Your task to perform on an android device: Search for custom wallets on Etsy. Image 0: 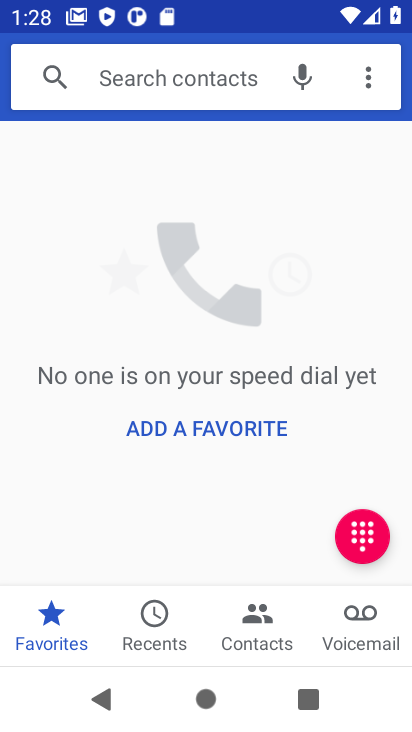
Step 0: press home button
Your task to perform on an android device: Search for custom wallets on Etsy. Image 1: 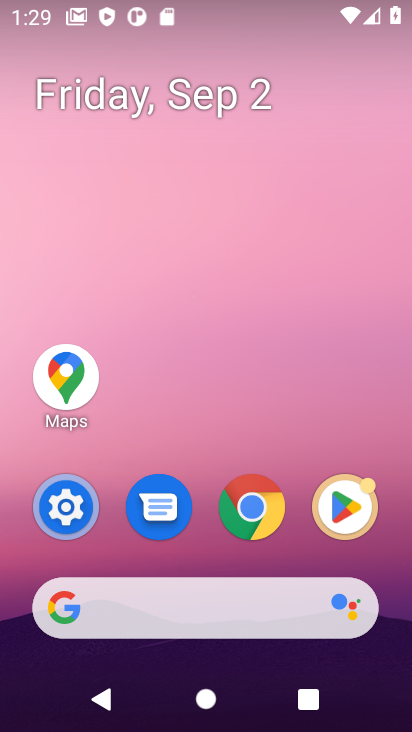
Step 1: click (248, 492)
Your task to perform on an android device: Search for custom wallets on Etsy. Image 2: 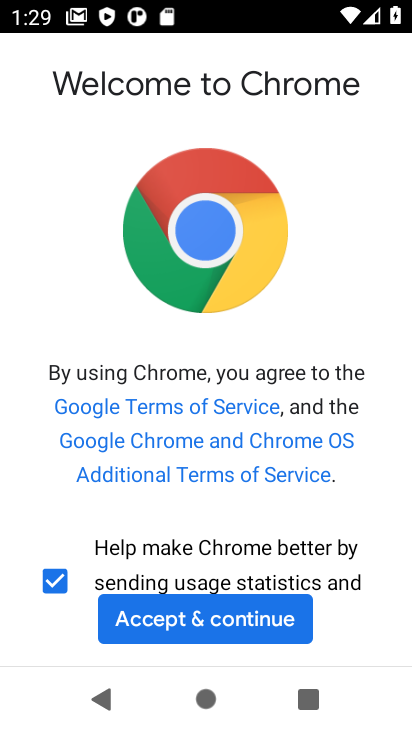
Step 2: click (258, 597)
Your task to perform on an android device: Search for custom wallets on Etsy. Image 3: 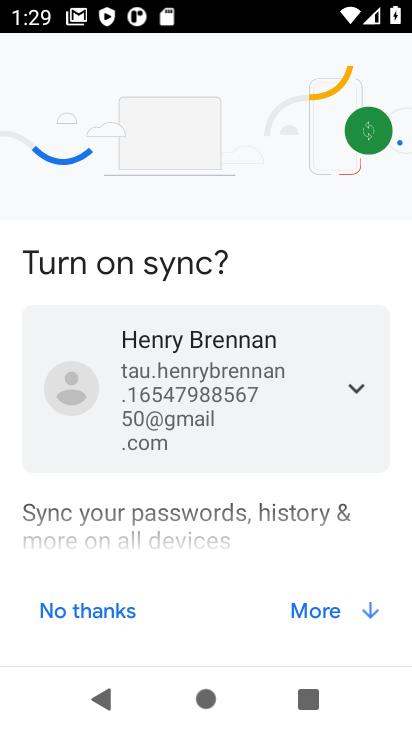
Step 3: click (297, 608)
Your task to perform on an android device: Search for custom wallets on Etsy. Image 4: 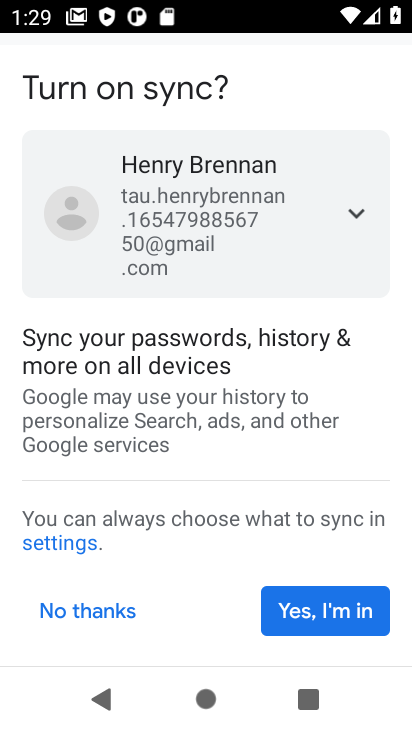
Step 4: click (301, 604)
Your task to perform on an android device: Search for custom wallets on Etsy. Image 5: 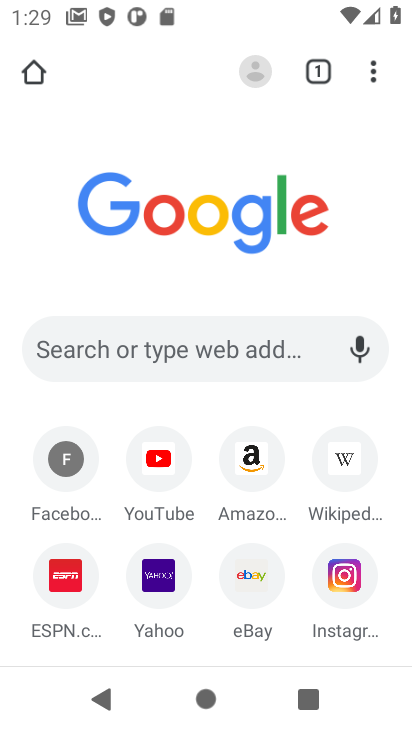
Step 5: click (207, 344)
Your task to perform on an android device: Search for custom wallets on Etsy. Image 6: 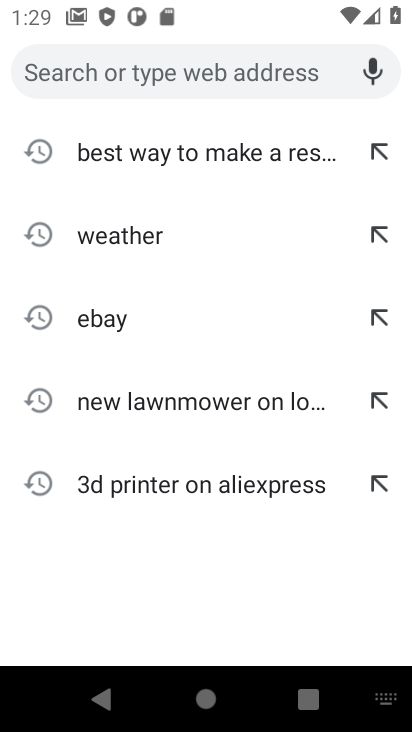
Step 6: type "esty"
Your task to perform on an android device: Search for custom wallets on Etsy. Image 7: 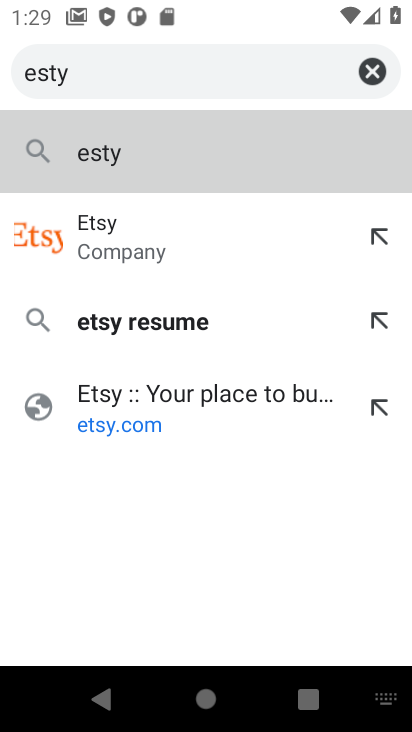
Step 7: click (229, 251)
Your task to perform on an android device: Search for custom wallets on Etsy. Image 8: 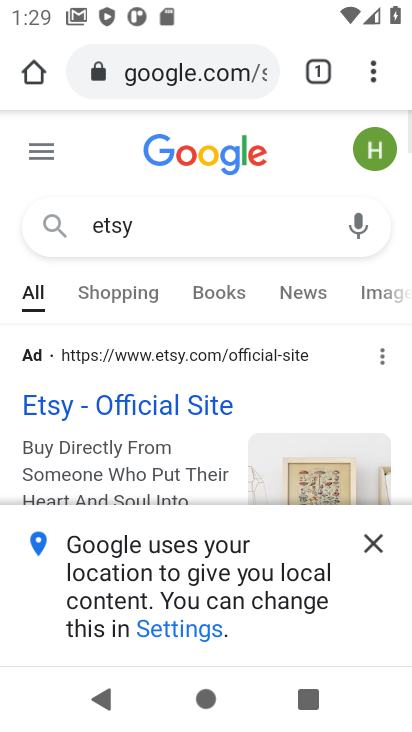
Step 8: click (380, 545)
Your task to perform on an android device: Search for custom wallets on Etsy. Image 9: 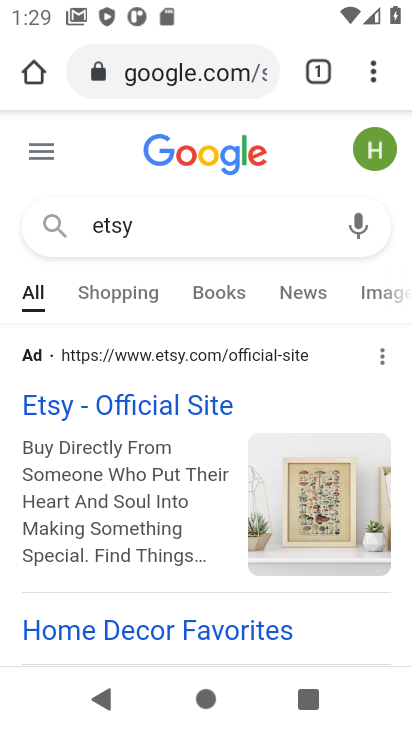
Step 9: click (157, 419)
Your task to perform on an android device: Search for custom wallets on Etsy. Image 10: 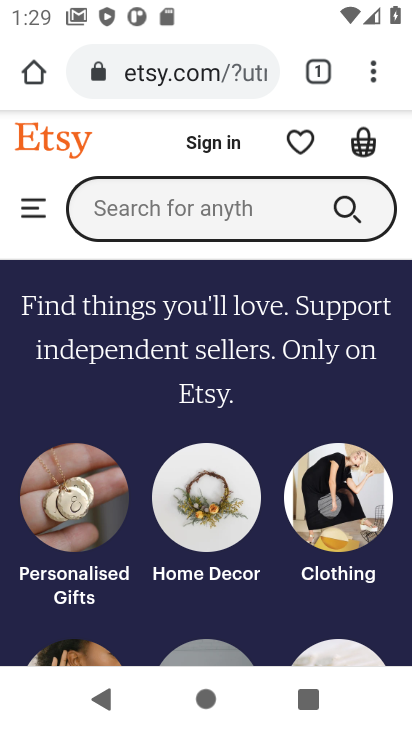
Step 10: click (205, 222)
Your task to perform on an android device: Search for custom wallets on Etsy. Image 11: 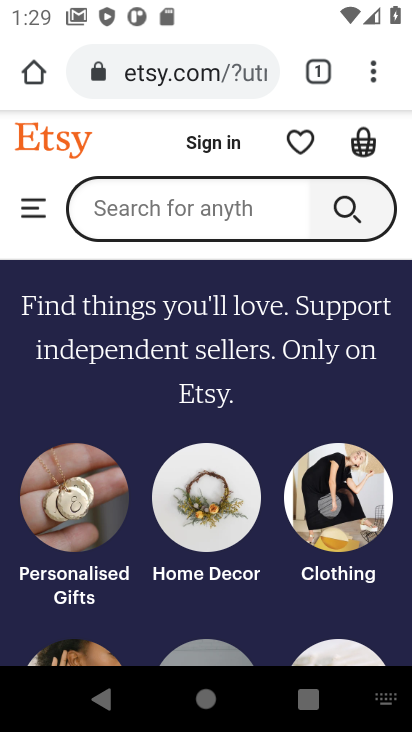
Step 11: type "cutom wallet"
Your task to perform on an android device: Search for custom wallets on Etsy. Image 12: 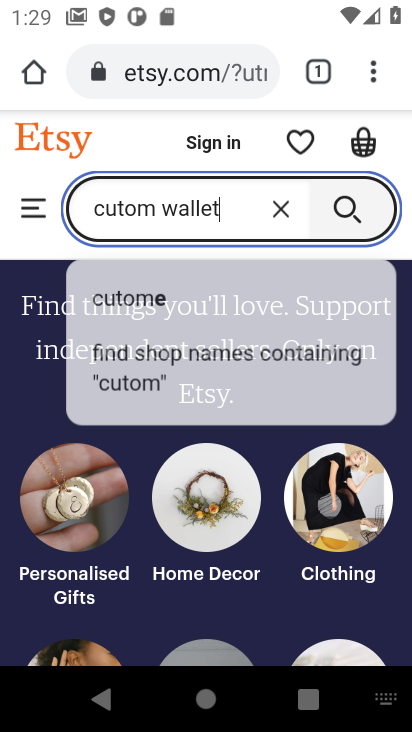
Step 12: click (335, 221)
Your task to perform on an android device: Search for custom wallets on Etsy. Image 13: 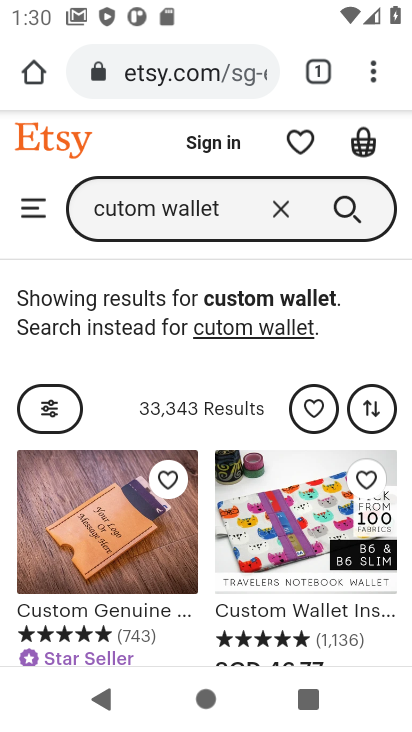
Step 13: task complete